Your task to perform on an android device: open a new tab in the chrome app Image 0: 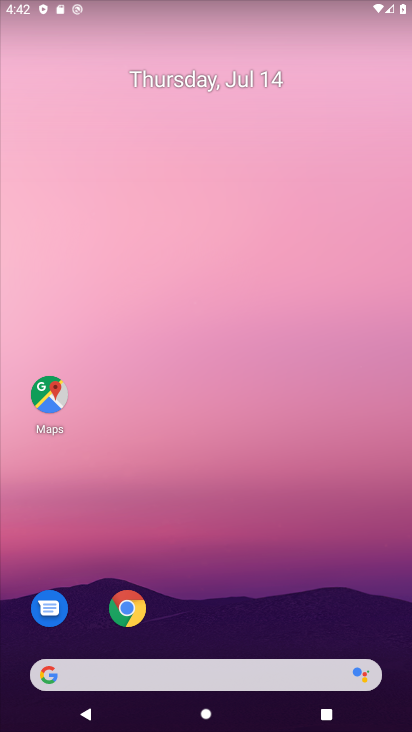
Step 0: drag from (310, 368) to (268, 62)
Your task to perform on an android device: open a new tab in the chrome app Image 1: 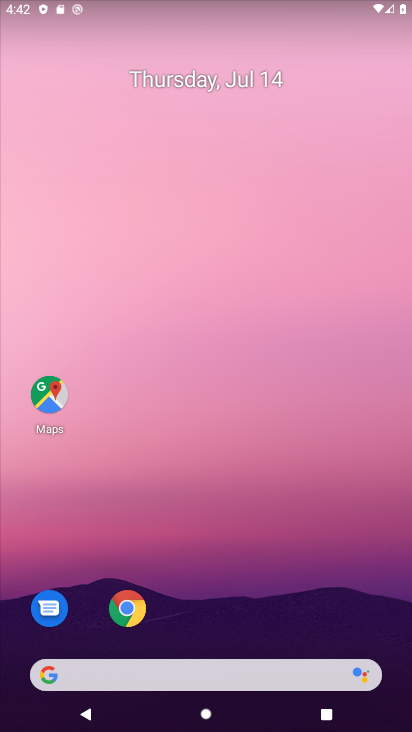
Step 1: drag from (303, 312) to (250, 48)
Your task to perform on an android device: open a new tab in the chrome app Image 2: 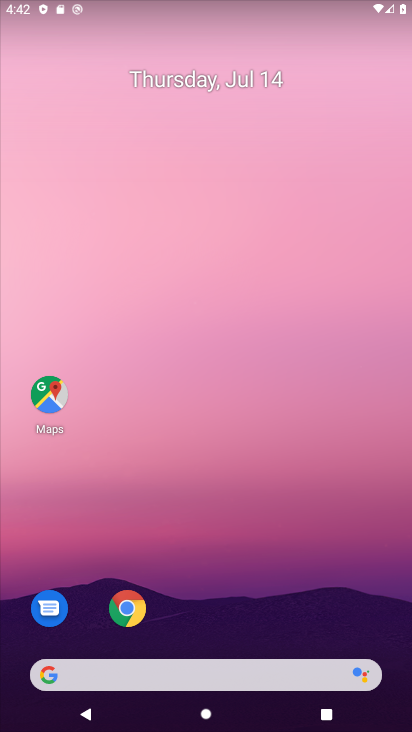
Step 2: drag from (300, 651) to (294, 31)
Your task to perform on an android device: open a new tab in the chrome app Image 3: 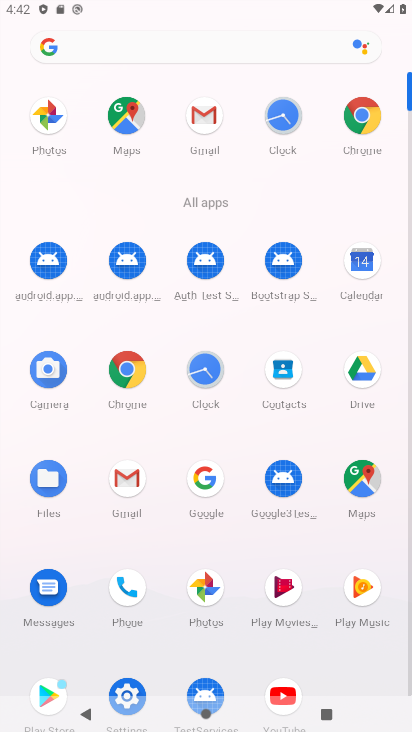
Step 3: click (130, 368)
Your task to perform on an android device: open a new tab in the chrome app Image 4: 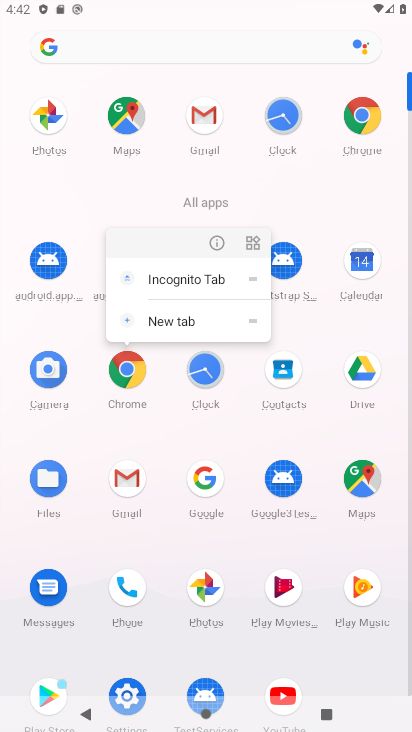
Step 4: click (125, 374)
Your task to perform on an android device: open a new tab in the chrome app Image 5: 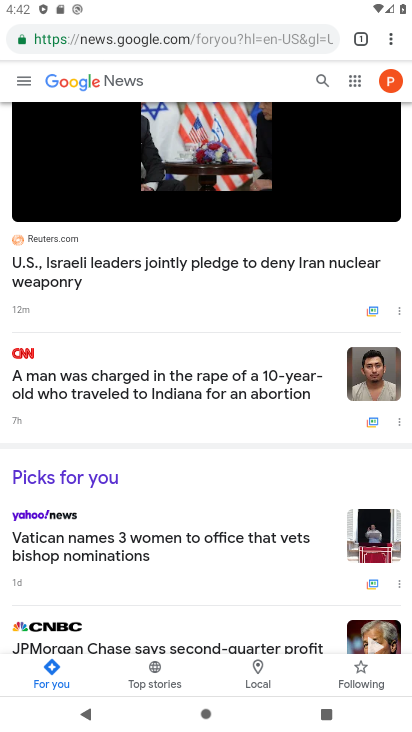
Step 5: task complete